Your task to perform on an android device: turn on airplane mode Image 0: 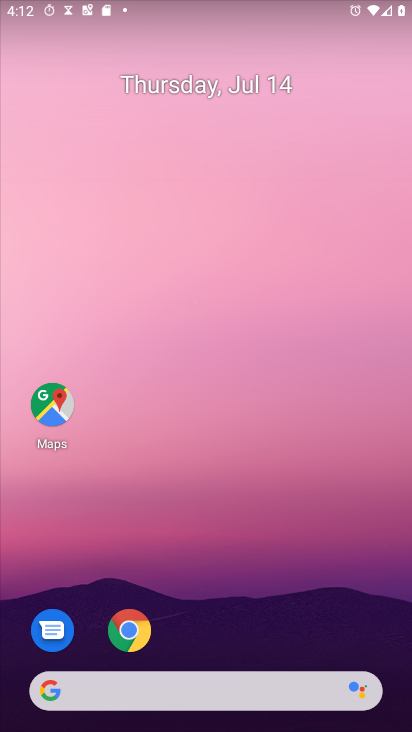
Step 0: drag from (167, 602) to (167, 106)
Your task to perform on an android device: turn on airplane mode Image 1: 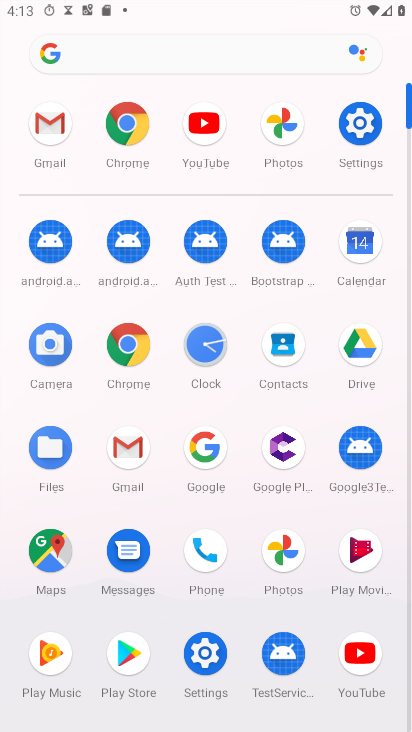
Step 1: click (364, 123)
Your task to perform on an android device: turn on airplane mode Image 2: 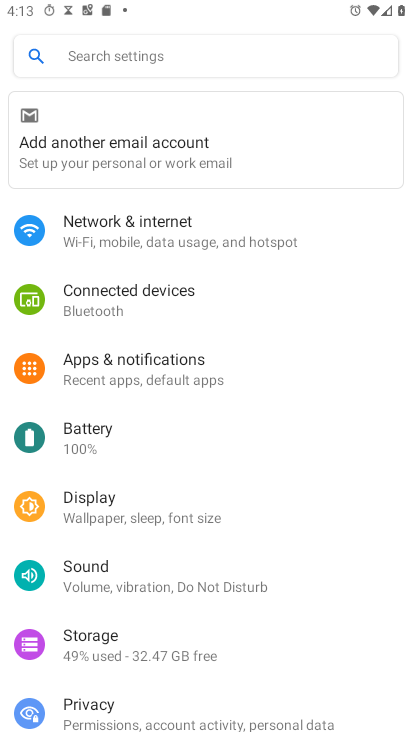
Step 2: click (100, 230)
Your task to perform on an android device: turn on airplane mode Image 3: 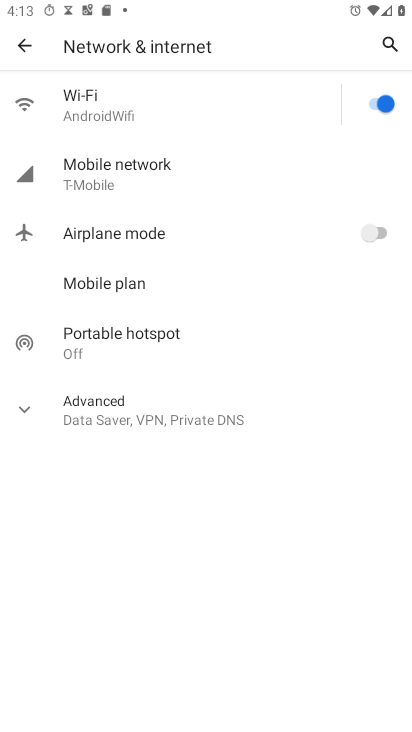
Step 3: click (384, 230)
Your task to perform on an android device: turn on airplane mode Image 4: 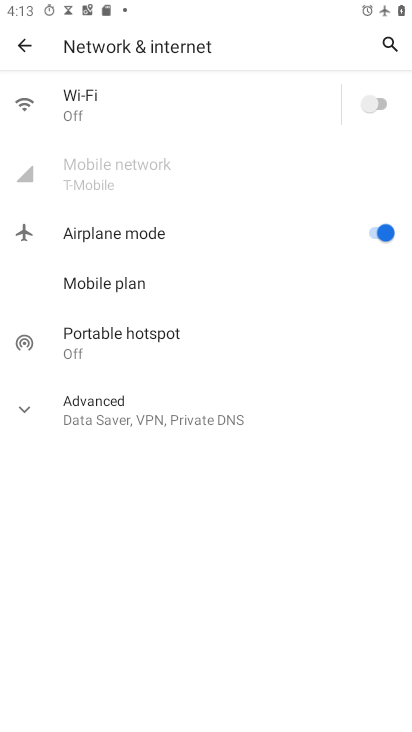
Step 4: task complete